Your task to perform on an android device: open wifi settings Image 0: 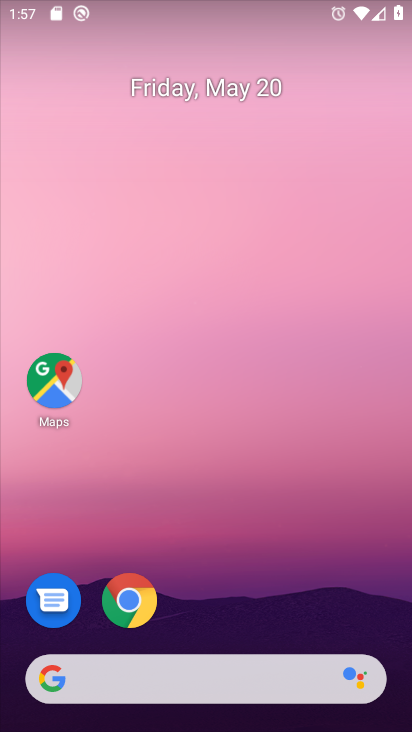
Step 0: drag from (232, 626) to (255, 245)
Your task to perform on an android device: open wifi settings Image 1: 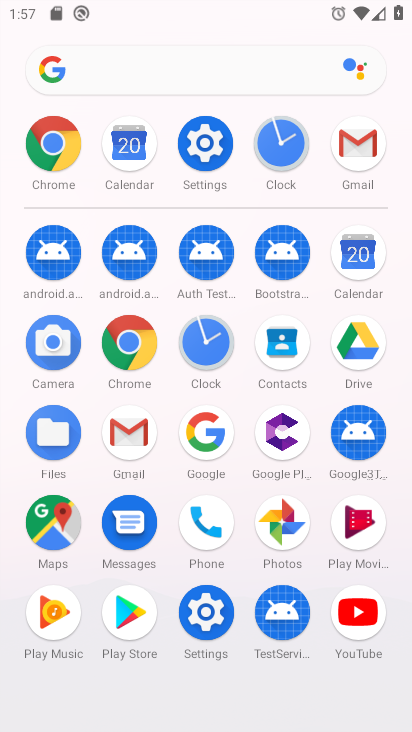
Step 1: click (222, 627)
Your task to perform on an android device: open wifi settings Image 2: 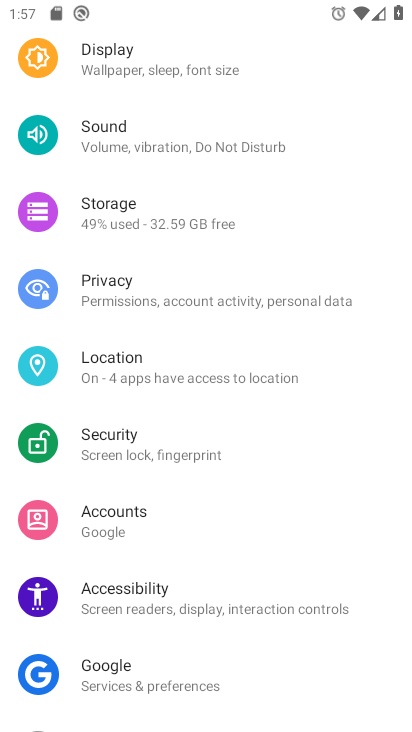
Step 2: drag from (158, 185) to (174, 608)
Your task to perform on an android device: open wifi settings Image 3: 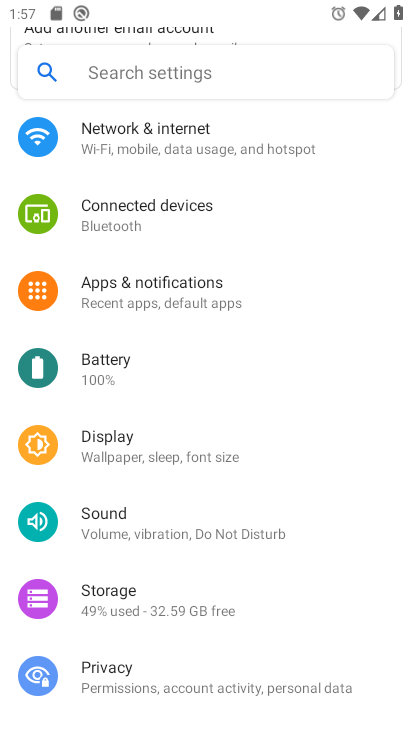
Step 3: drag from (184, 212) to (212, 642)
Your task to perform on an android device: open wifi settings Image 4: 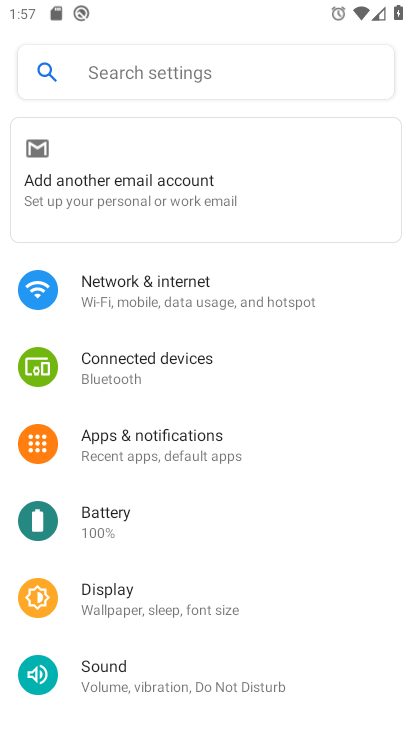
Step 4: click (207, 317)
Your task to perform on an android device: open wifi settings Image 5: 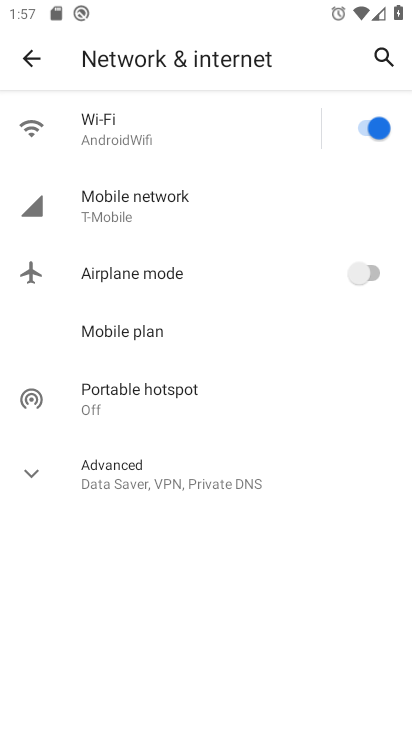
Step 5: click (182, 124)
Your task to perform on an android device: open wifi settings Image 6: 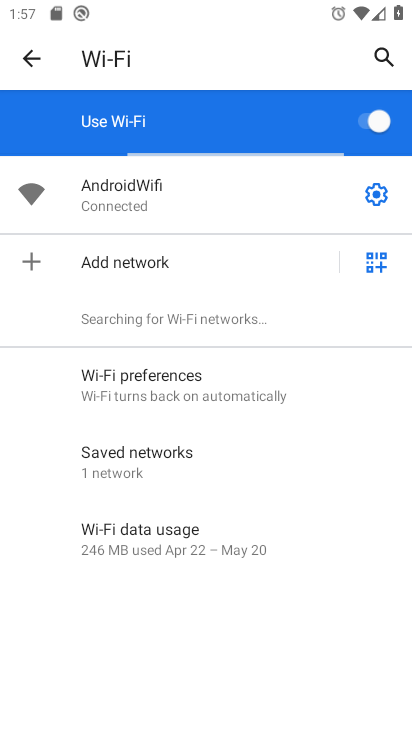
Step 6: task complete